Your task to perform on an android device: turn on notifications settings in the gmail app Image 0: 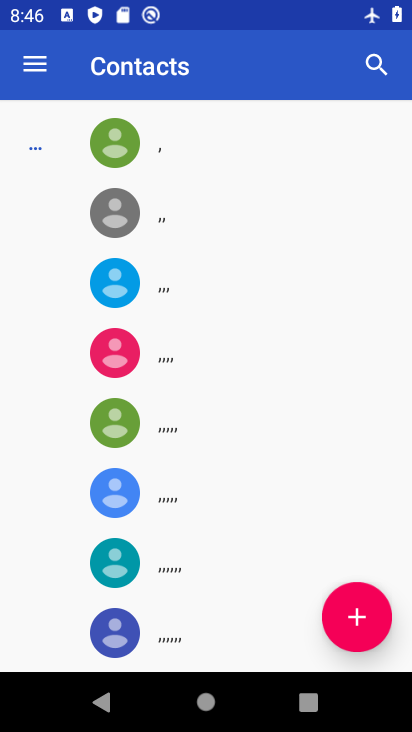
Step 0: press home button
Your task to perform on an android device: turn on notifications settings in the gmail app Image 1: 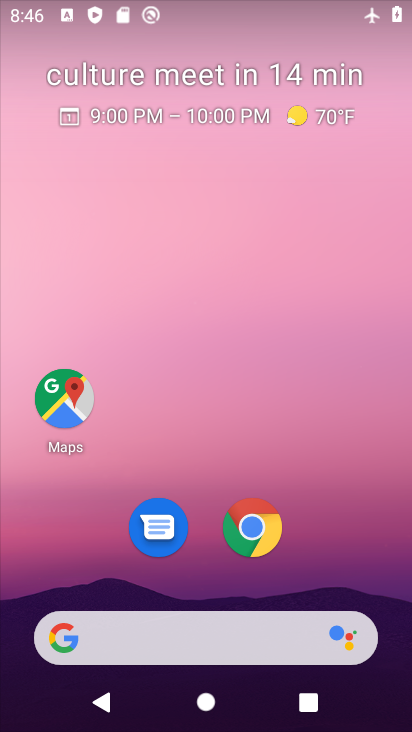
Step 1: drag from (189, 552) to (201, 400)
Your task to perform on an android device: turn on notifications settings in the gmail app Image 2: 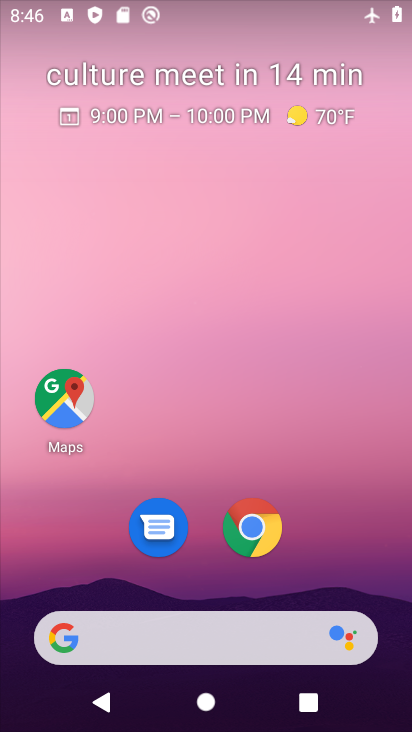
Step 2: drag from (210, 632) to (241, 285)
Your task to perform on an android device: turn on notifications settings in the gmail app Image 3: 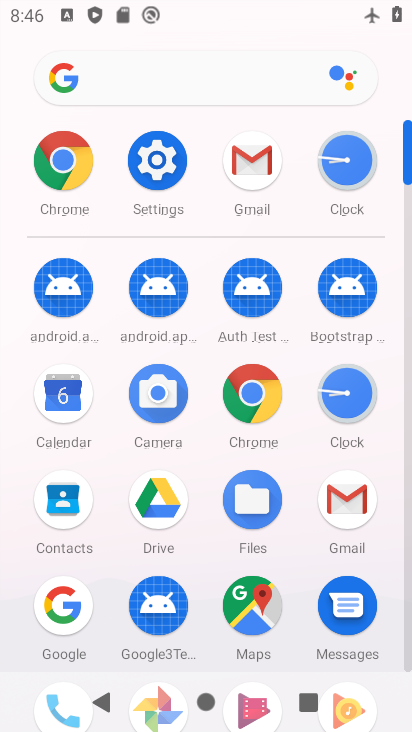
Step 3: click (360, 515)
Your task to perform on an android device: turn on notifications settings in the gmail app Image 4: 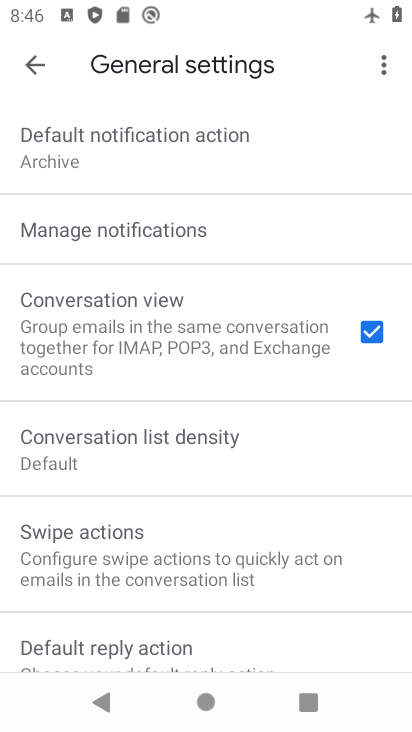
Step 4: click (182, 234)
Your task to perform on an android device: turn on notifications settings in the gmail app Image 5: 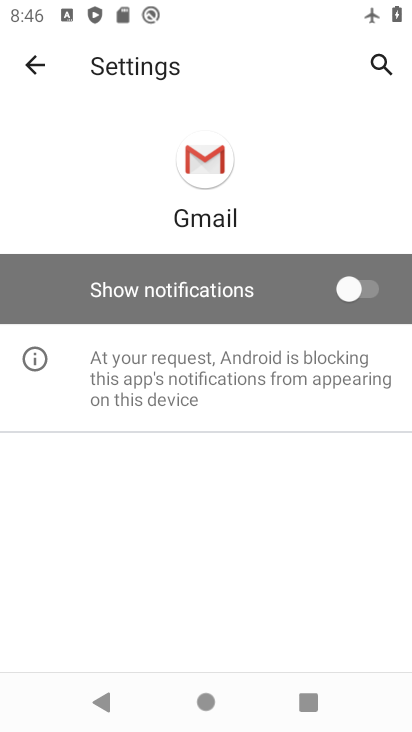
Step 5: click (280, 316)
Your task to perform on an android device: turn on notifications settings in the gmail app Image 6: 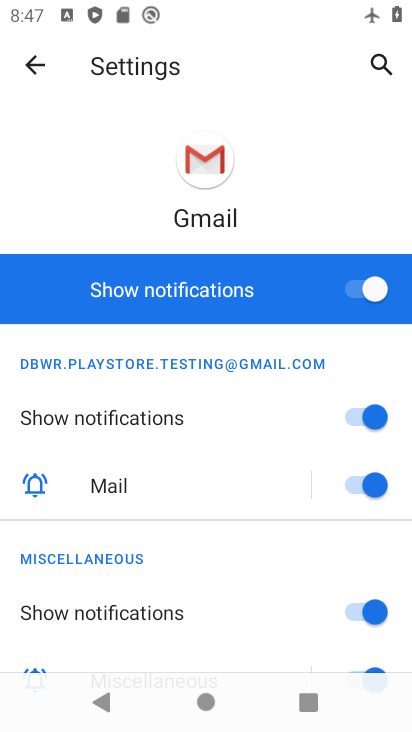
Step 6: task complete